Your task to perform on an android device: Open the calculator Image 0: 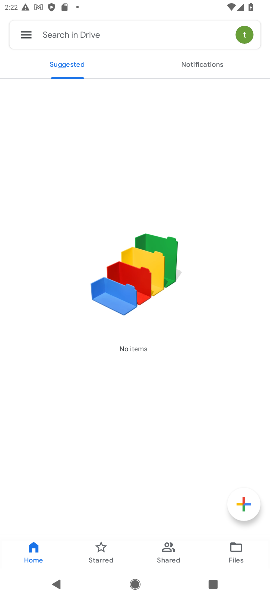
Step 0: press home button
Your task to perform on an android device: Open the calculator Image 1: 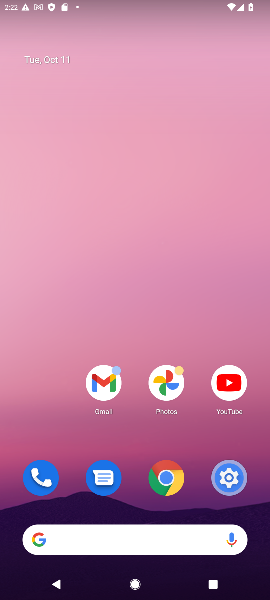
Step 1: task complete